Your task to perform on an android device: Go to network settings Image 0: 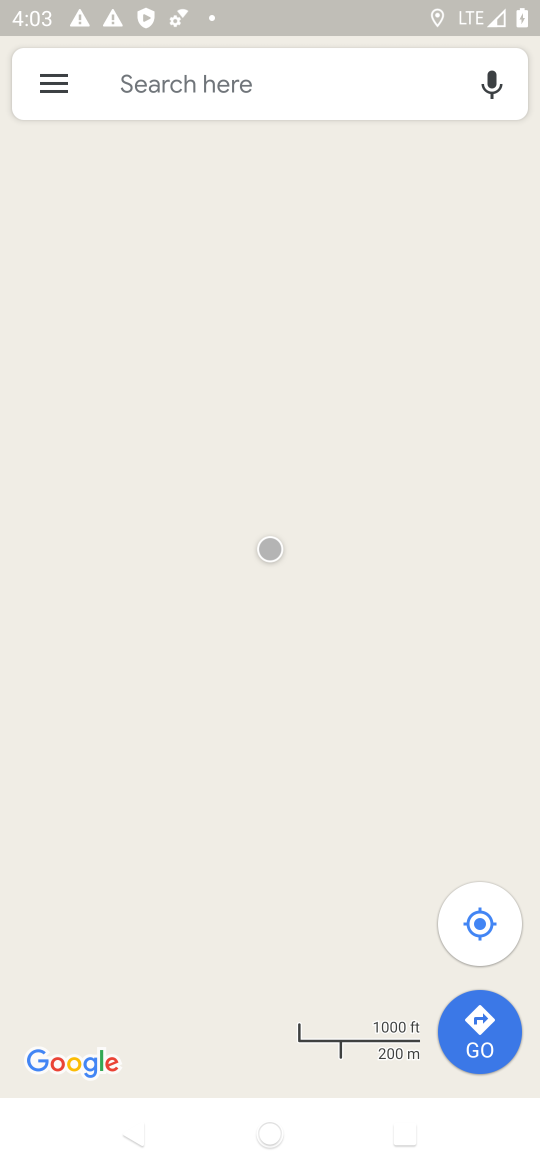
Step 0: press home button
Your task to perform on an android device: Go to network settings Image 1: 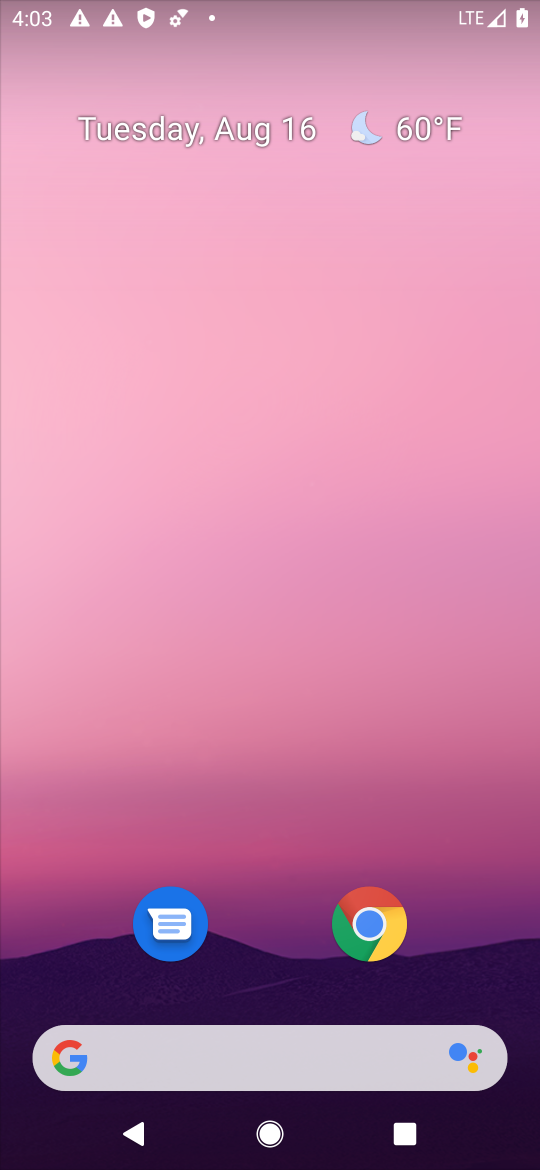
Step 1: drag from (258, 16) to (507, 883)
Your task to perform on an android device: Go to network settings Image 2: 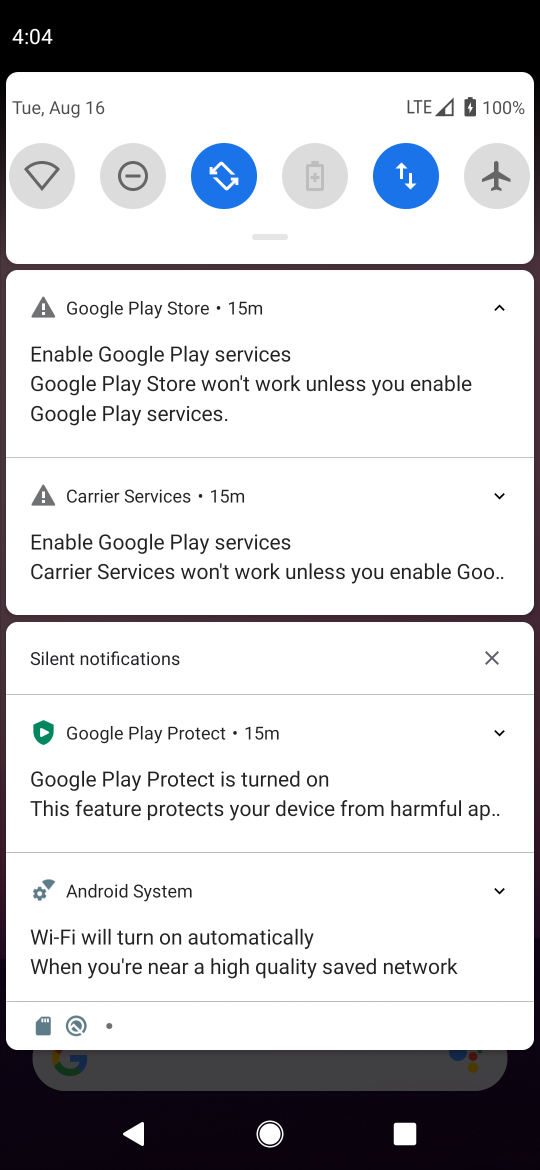
Step 2: click (416, 173)
Your task to perform on an android device: Go to network settings Image 3: 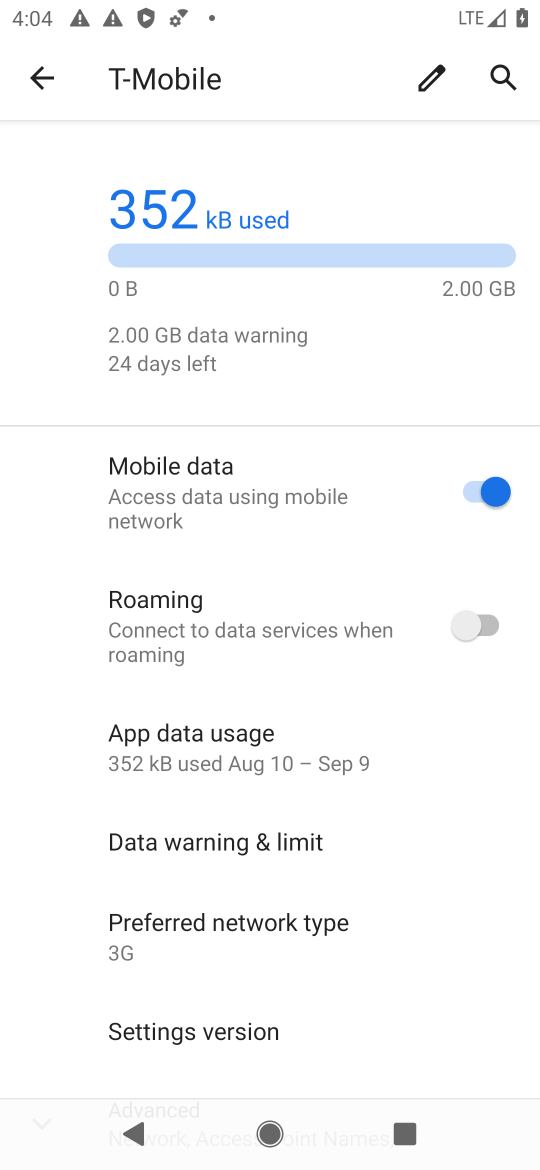
Step 3: task complete